Your task to perform on an android device: open sync settings in chrome Image 0: 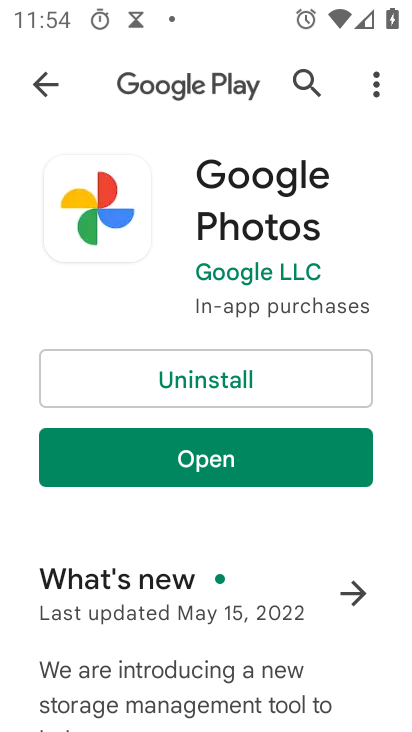
Step 0: press home button
Your task to perform on an android device: open sync settings in chrome Image 1: 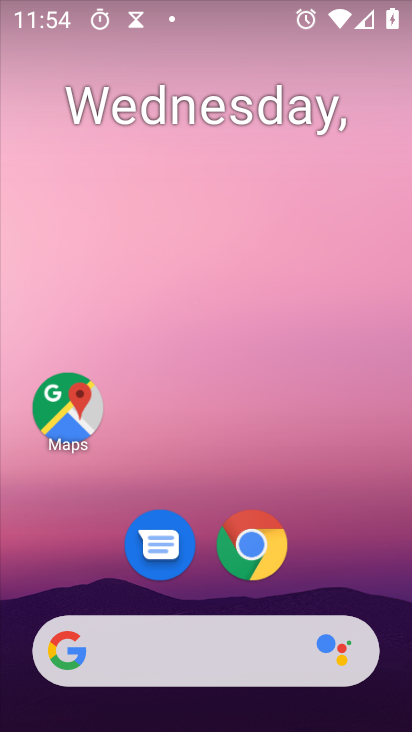
Step 1: click (257, 556)
Your task to perform on an android device: open sync settings in chrome Image 2: 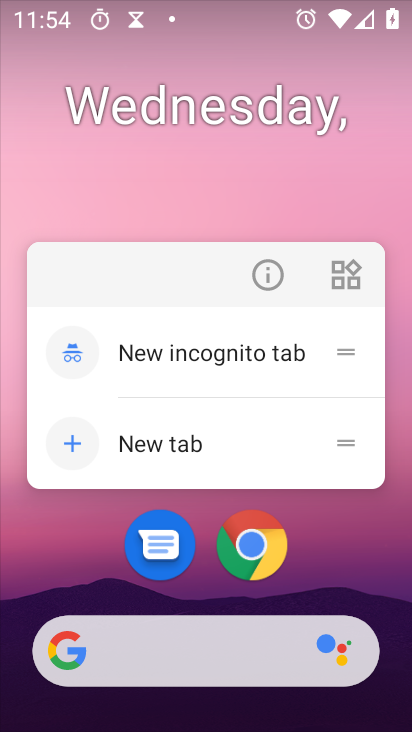
Step 2: click (259, 551)
Your task to perform on an android device: open sync settings in chrome Image 3: 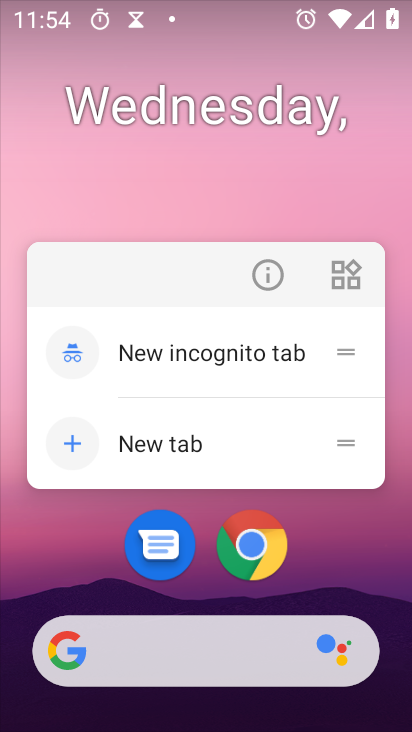
Step 3: click (257, 553)
Your task to perform on an android device: open sync settings in chrome Image 4: 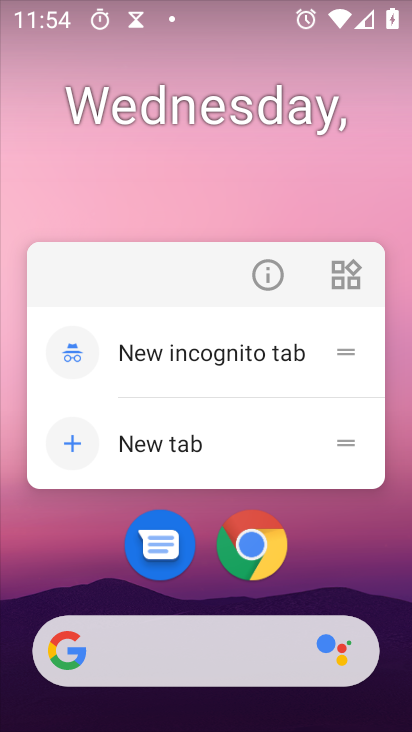
Step 4: click (252, 558)
Your task to perform on an android device: open sync settings in chrome Image 5: 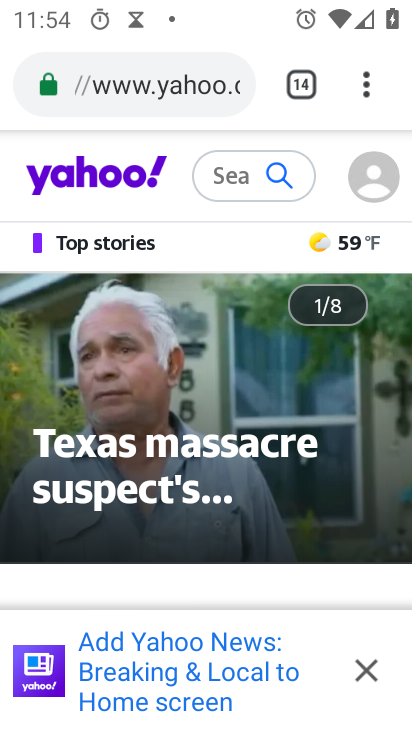
Step 5: drag from (367, 92) to (164, 598)
Your task to perform on an android device: open sync settings in chrome Image 6: 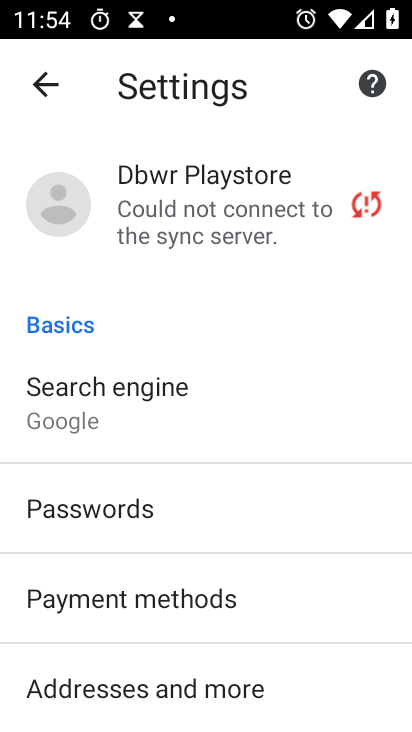
Step 6: click (221, 189)
Your task to perform on an android device: open sync settings in chrome Image 7: 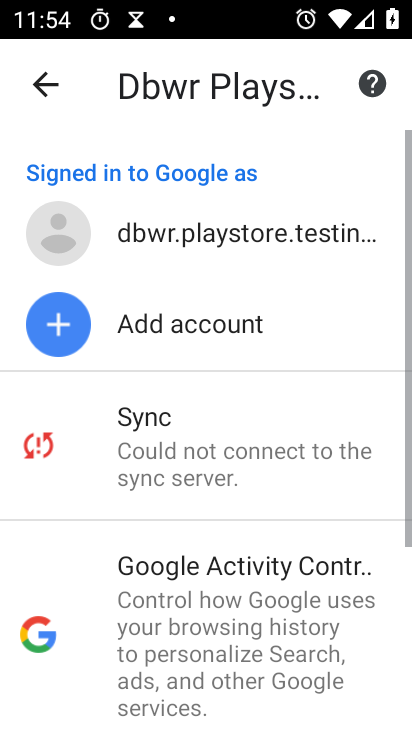
Step 7: click (173, 429)
Your task to perform on an android device: open sync settings in chrome Image 8: 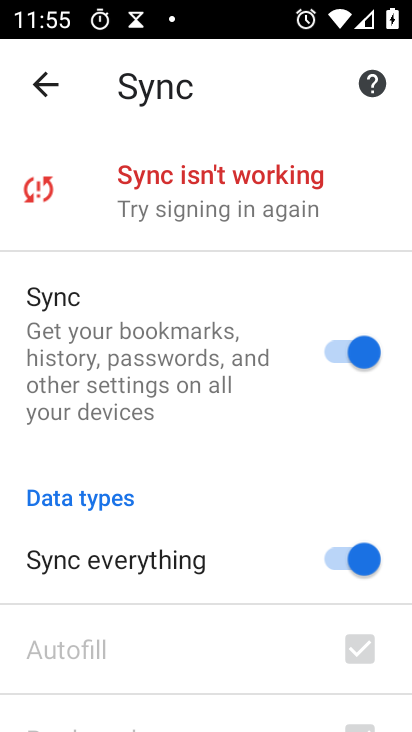
Step 8: task complete